Your task to perform on an android device: Turn on the flashlight Image 0: 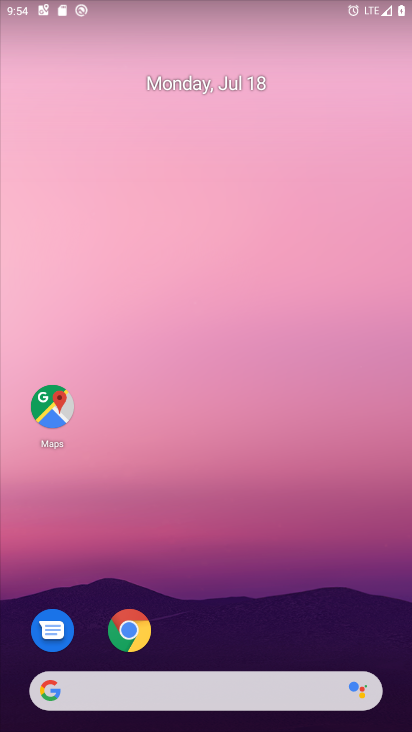
Step 0: drag from (182, 640) to (199, 255)
Your task to perform on an android device: Turn on the flashlight Image 1: 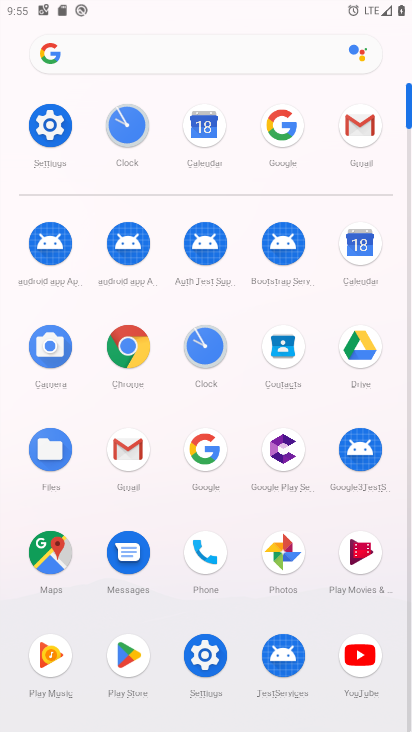
Step 1: click (52, 135)
Your task to perform on an android device: Turn on the flashlight Image 2: 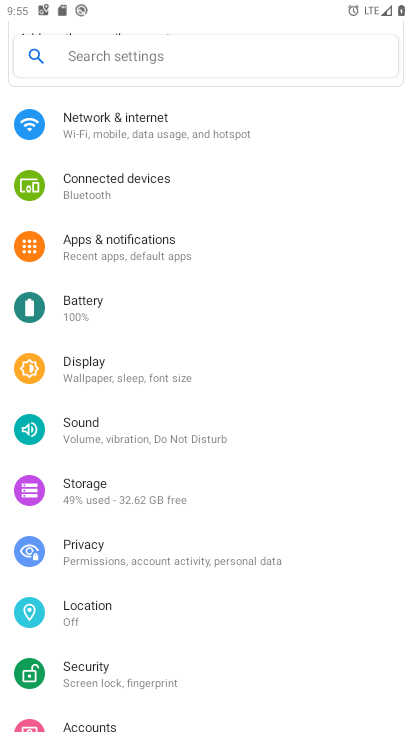
Step 2: task complete